Your task to perform on an android device: Empty the shopping cart on amazon.com. Search for "razer blade" on amazon.com, select the first entry, add it to the cart, then select checkout. Image 0: 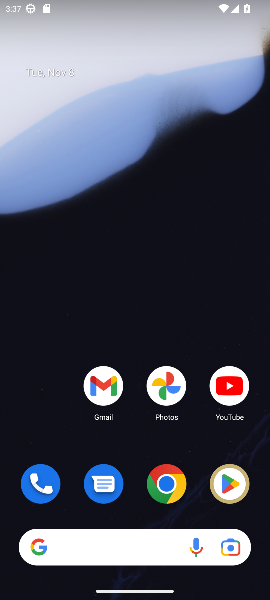
Step 0: click (173, 478)
Your task to perform on an android device: Empty the shopping cart on amazon.com. Search for "razer blade" on amazon.com, select the first entry, add it to the cart, then select checkout. Image 1: 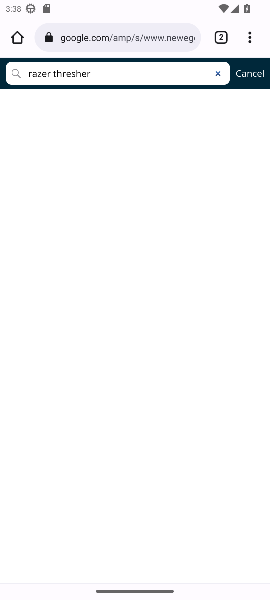
Step 1: click (179, 29)
Your task to perform on an android device: Empty the shopping cart on amazon.com. Search for "razer blade" on amazon.com, select the first entry, add it to the cart, then select checkout. Image 2: 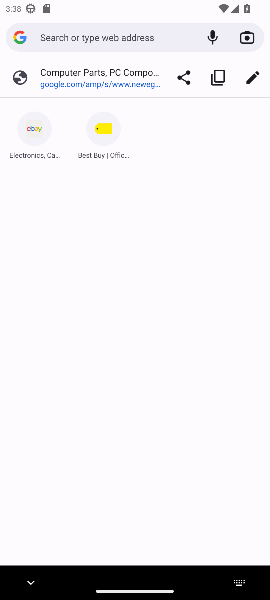
Step 2: type "amazon"
Your task to perform on an android device: Empty the shopping cart on amazon.com. Search for "razer blade" on amazon.com, select the first entry, add it to the cart, then select checkout. Image 3: 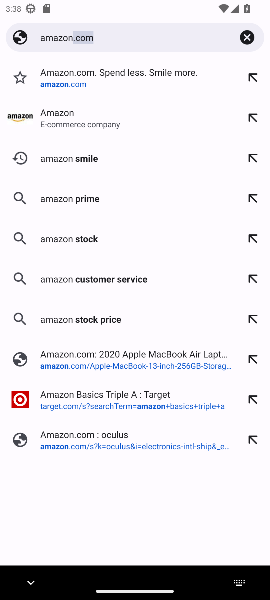
Step 3: click (69, 115)
Your task to perform on an android device: Empty the shopping cart on amazon.com. Search for "razer blade" on amazon.com, select the first entry, add it to the cart, then select checkout. Image 4: 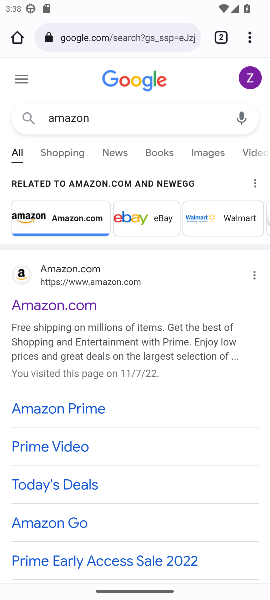
Step 4: click (77, 306)
Your task to perform on an android device: Empty the shopping cart on amazon.com. Search for "razer blade" on amazon.com, select the first entry, add it to the cart, then select checkout. Image 5: 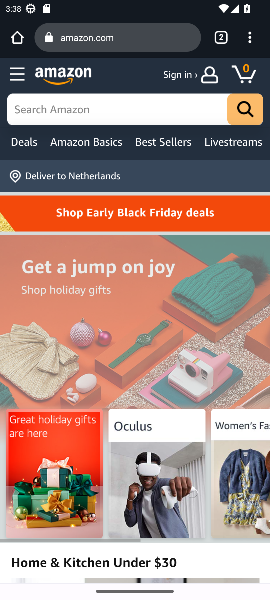
Step 5: click (72, 102)
Your task to perform on an android device: Empty the shopping cart on amazon.com. Search for "razer blade" on amazon.com, select the first entry, add it to the cart, then select checkout. Image 6: 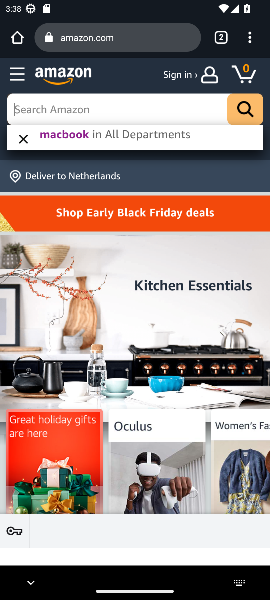
Step 6: type "razer blade"
Your task to perform on an android device: Empty the shopping cart on amazon.com. Search for "razer blade" on amazon.com, select the first entry, add it to the cart, then select checkout. Image 7: 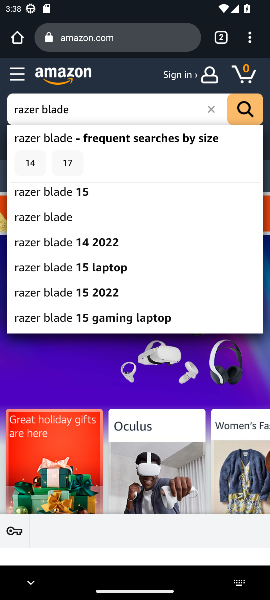
Step 7: click (238, 115)
Your task to perform on an android device: Empty the shopping cart on amazon.com. Search for "razer blade" on amazon.com, select the first entry, add it to the cart, then select checkout. Image 8: 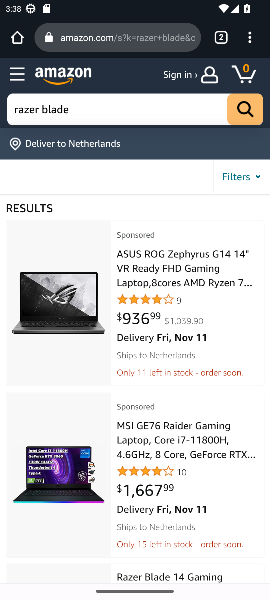
Step 8: drag from (171, 392) to (191, 90)
Your task to perform on an android device: Empty the shopping cart on amazon.com. Search for "razer blade" on amazon.com, select the first entry, add it to the cart, then select checkout. Image 9: 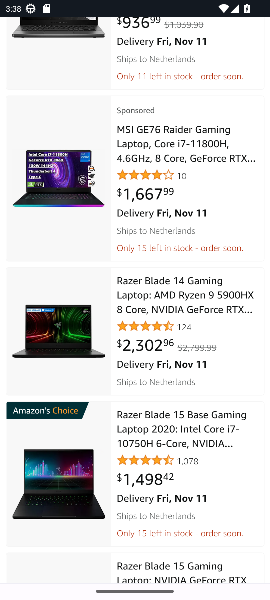
Step 9: click (150, 289)
Your task to perform on an android device: Empty the shopping cart on amazon.com. Search for "razer blade" on amazon.com, select the first entry, add it to the cart, then select checkout. Image 10: 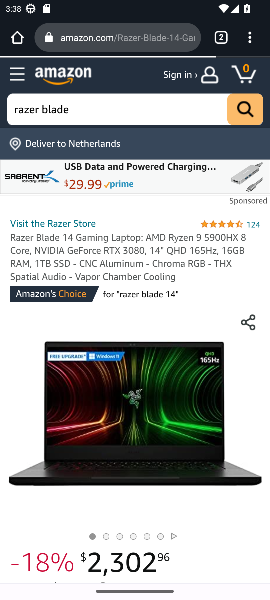
Step 10: drag from (25, 494) to (60, 197)
Your task to perform on an android device: Empty the shopping cart on amazon.com. Search for "razer blade" on amazon.com, select the first entry, add it to the cart, then select checkout. Image 11: 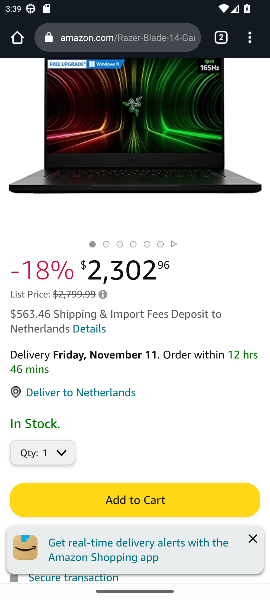
Step 11: click (143, 490)
Your task to perform on an android device: Empty the shopping cart on amazon.com. Search for "razer blade" on amazon.com, select the first entry, add it to the cart, then select checkout. Image 12: 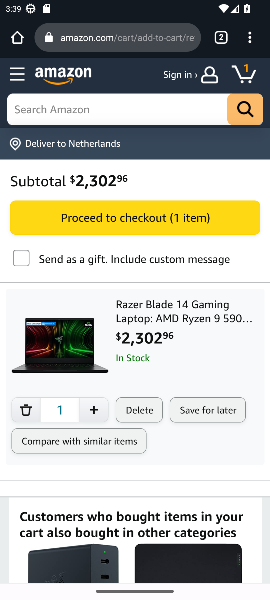
Step 12: click (176, 215)
Your task to perform on an android device: Empty the shopping cart on amazon.com. Search for "razer blade" on amazon.com, select the first entry, add it to the cart, then select checkout. Image 13: 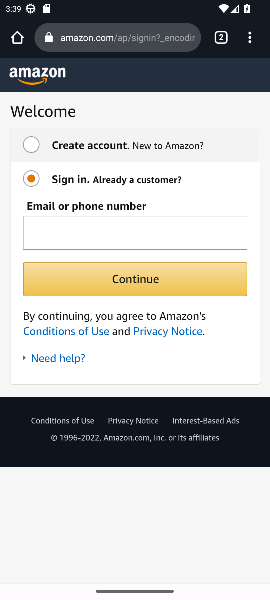
Step 13: task complete